Your task to perform on an android device: Open Amazon Image 0: 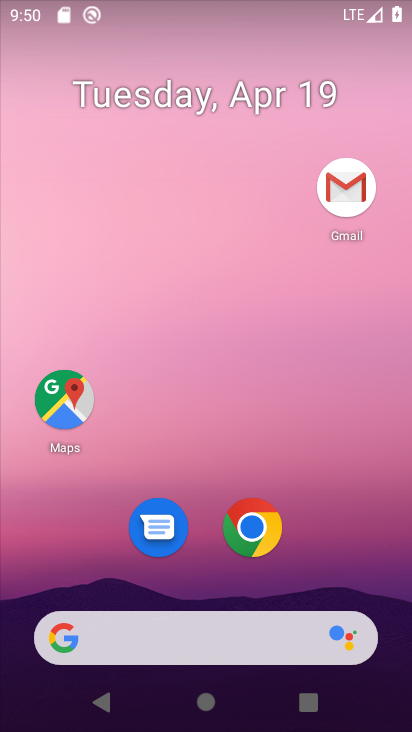
Step 0: click (267, 536)
Your task to perform on an android device: Open Amazon Image 1: 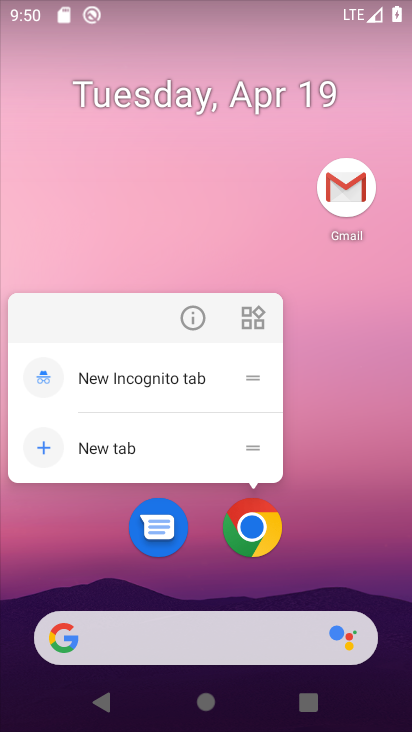
Step 1: click (267, 541)
Your task to perform on an android device: Open Amazon Image 2: 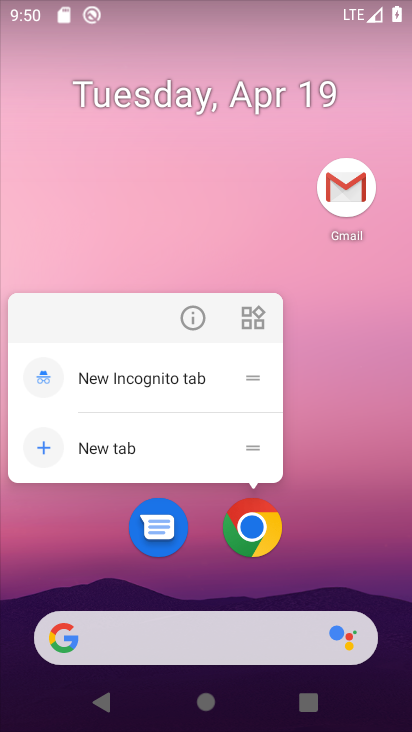
Step 2: drag from (328, 494) to (289, 142)
Your task to perform on an android device: Open Amazon Image 3: 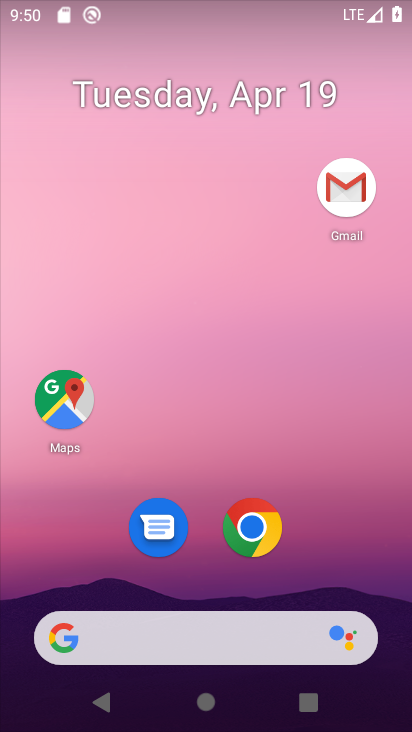
Step 3: drag from (272, 220) to (234, 118)
Your task to perform on an android device: Open Amazon Image 4: 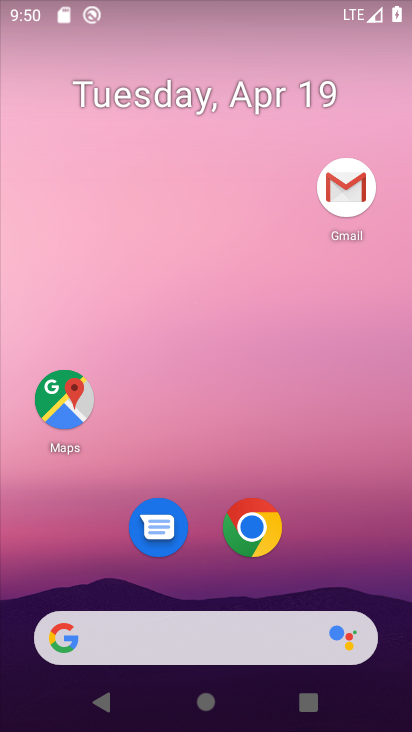
Step 4: drag from (383, 545) to (227, 36)
Your task to perform on an android device: Open Amazon Image 5: 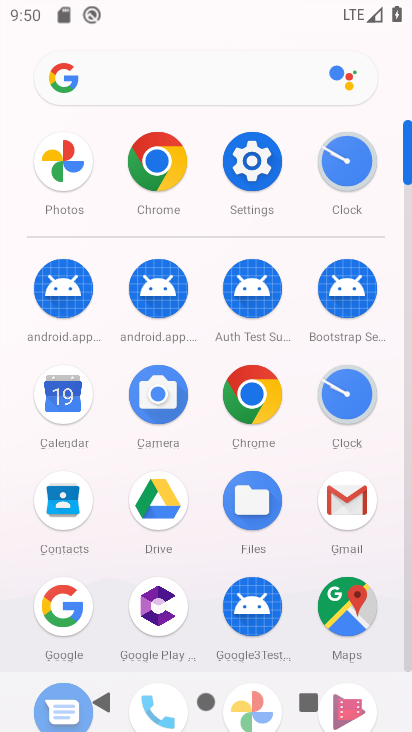
Step 5: click (260, 423)
Your task to perform on an android device: Open Amazon Image 6: 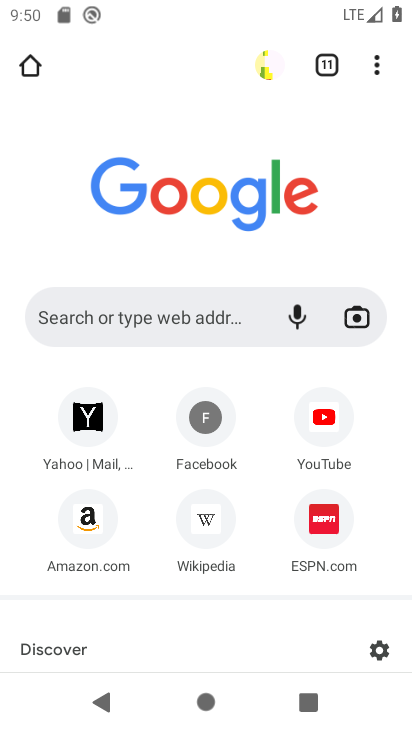
Step 6: click (90, 545)
Your task to perform on an android device: Open Amazon Image 7: 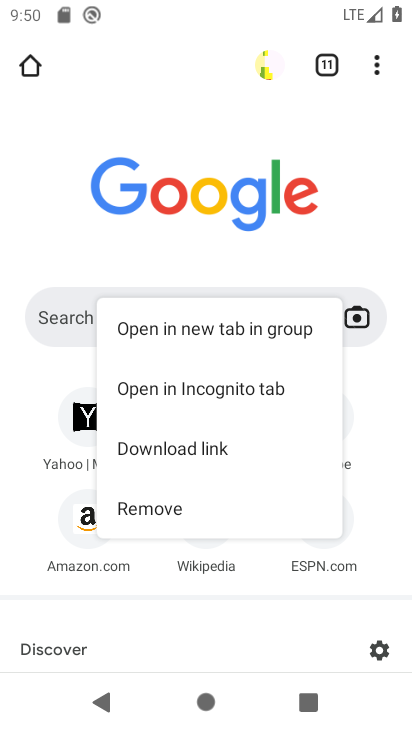
Step 7: click (72, 531)
Your task to perform on an android device: Open Amazon Image 8: 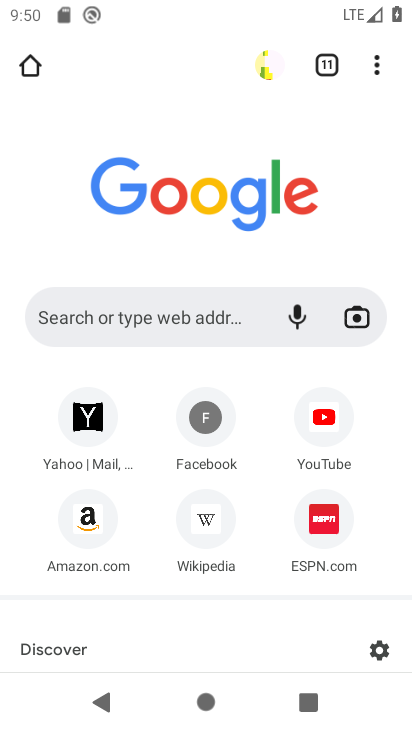
Step 8: click (85, 524)
Your task to perform on an android device: Open Amazon Image 9: 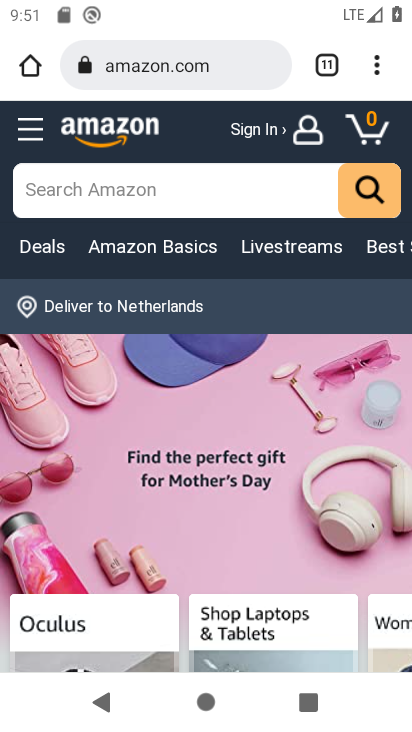
Step 9: task complete